Your task to perform on an android device: Search for Italian restaurants on Maps Image 0: 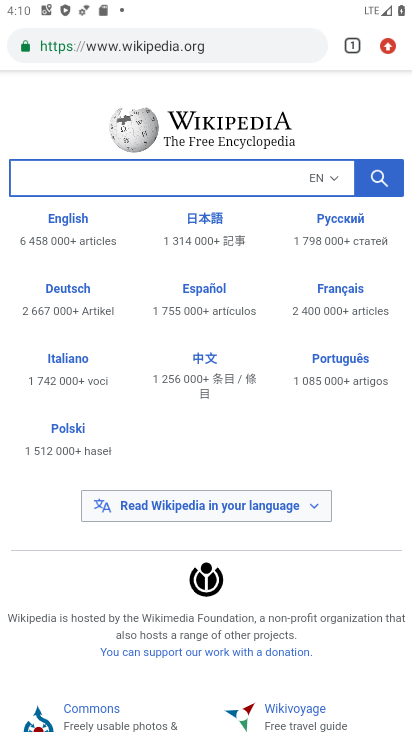
Step 0: press home button
Your task to perform on an android device: Search for Italian restaurants on Maps Image 1: 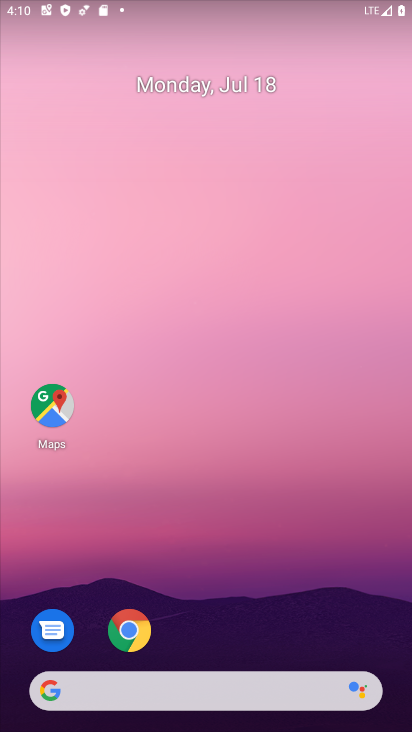
Step 1: click (49, 399)
Your task to perform on an android device: Search for Italian restaurants on Maps Image 2: 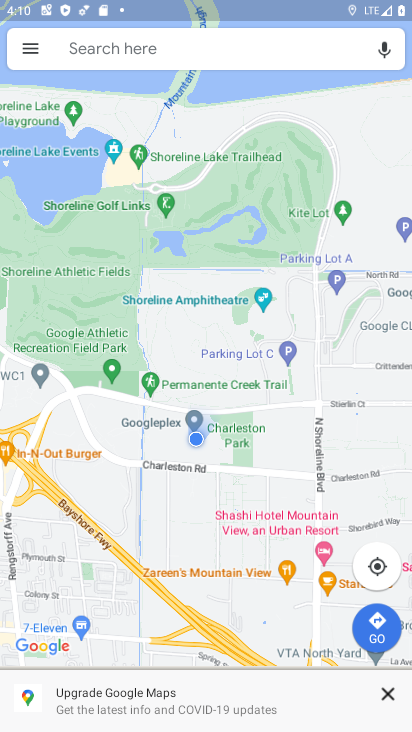
Step 2: click (114, 44)
Your task to perform on an android device: Search for Italian restaurants on Maps Image 3: 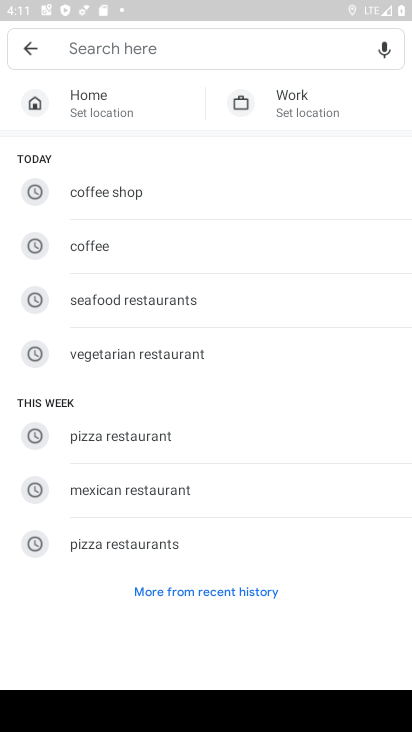
Step 3: type "italian restaurants"
Your task to perform on an android device: Search for Italian restaurants on Maps Image 4: 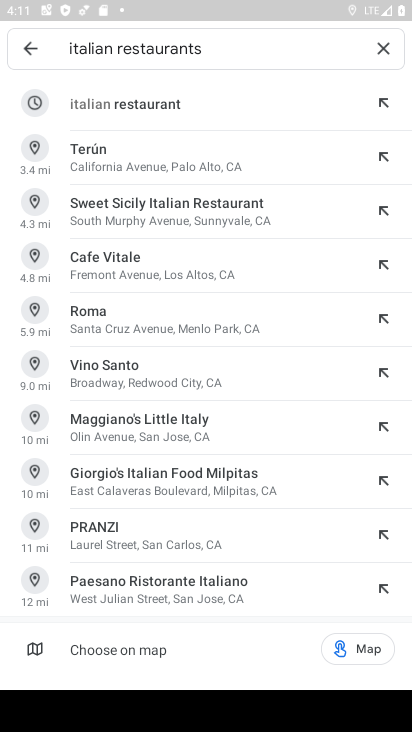
Step 4: click (108, 100)
Your task to perform on an android device: Search for Italian restaurants on Maps Image 5: 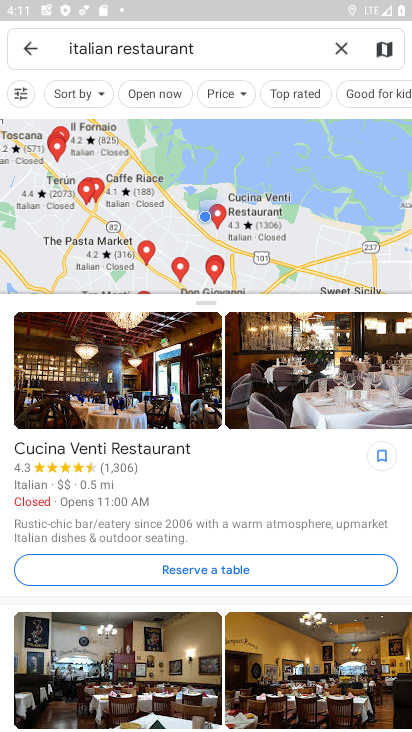
Step 5: task complete